Your task to perform on an android device: Open Google Maps and go to "Timeline" Image 0: 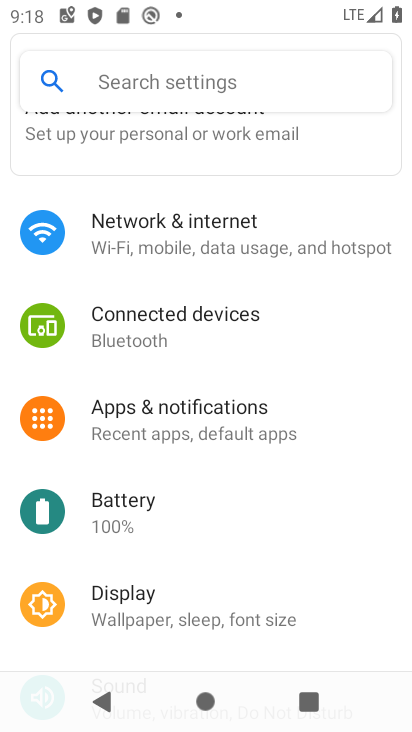
Step 0: press home button
Your task to perform on an android device: Open Google Maps and go to "Timeline" Image 1: 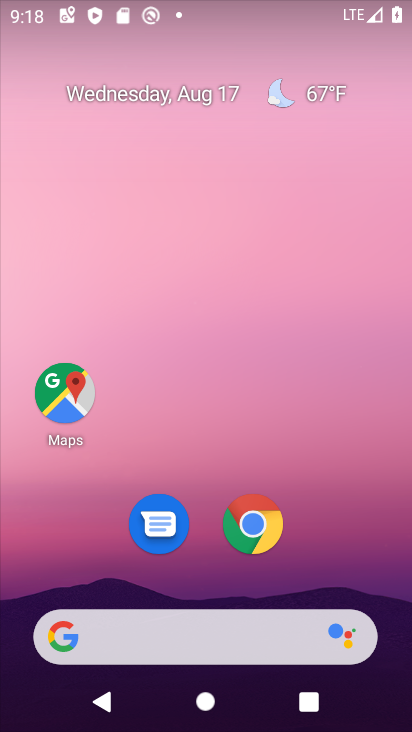
Step 1: click (55, 394)
Your task to perform on an android device: Open Google Maps and go to "Timeline" Image 2: 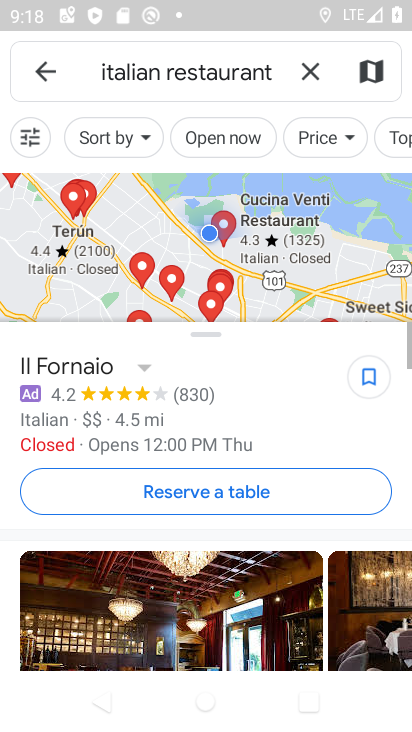
Step 2: click (38, 66)
Your task to perform on an android device: Open Google Maps and go to "Timeline" Image 3: 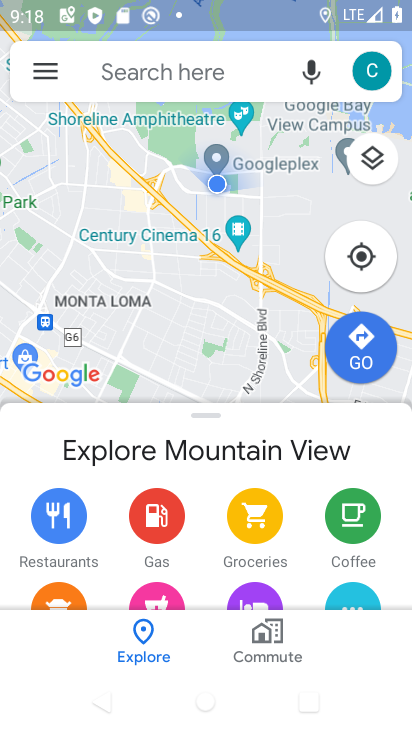
Step 3: click (37, 71)
Your task to perform on an android device: Open Google Maps and go to "Timeline" Image 4: 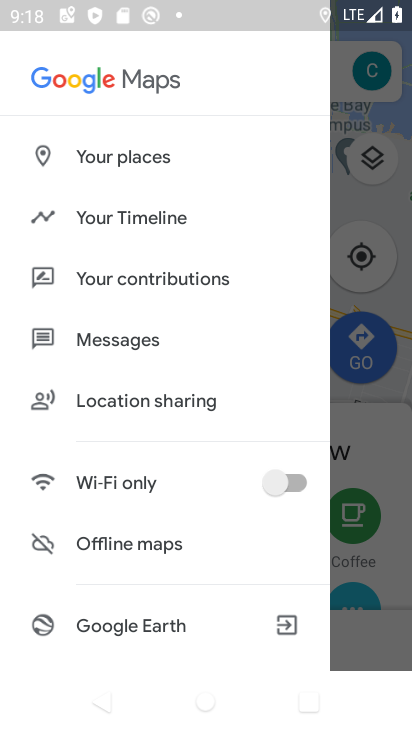
Step 4: click (134, 217)
Your task to perform on an android device: Open Google Maps and go to "Timeline" Image 5: 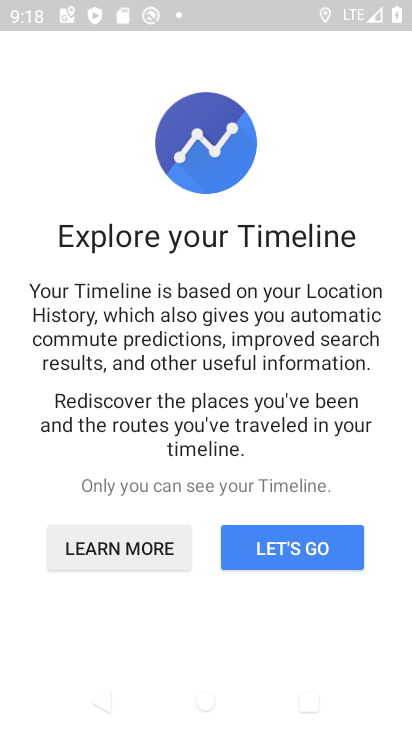
Step 5: click (333, 549)
Your task to perform on an android device: Open Google Maps and go to "Timeline" Image 6: 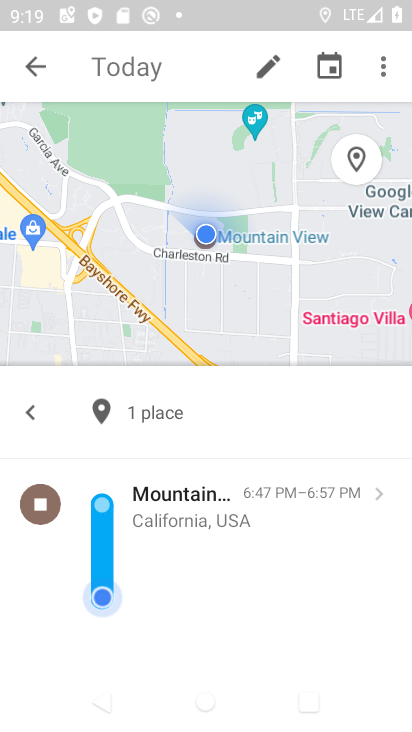
Step 6: task complete